Your task to perform on an android device: turn off location history Image 0: 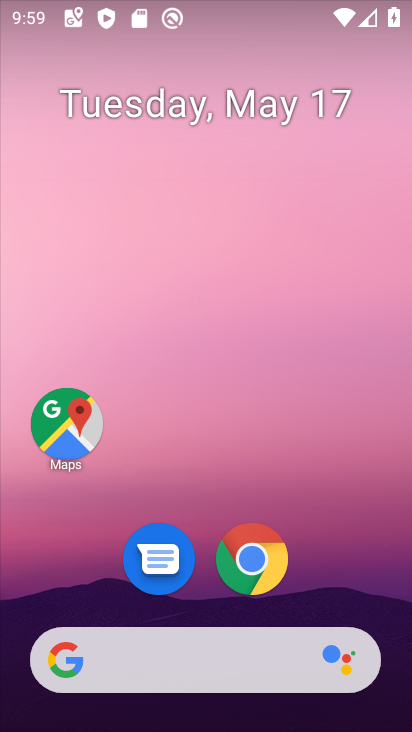
Step 0: drag from (237, 679) to (221, 0)
Your task to perform on an android device: turn off location history Image 1: 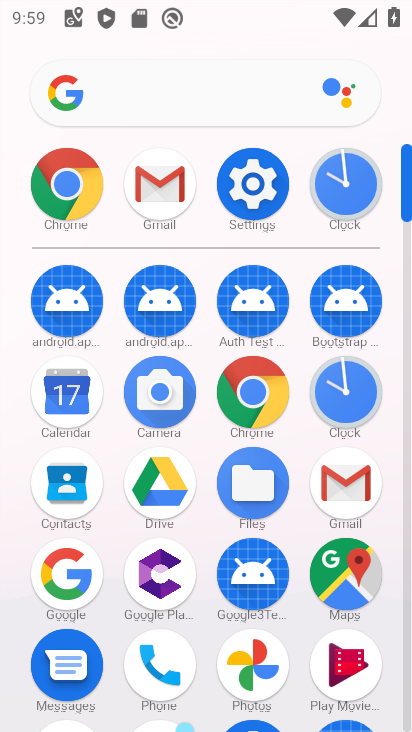
Step 1: click (264, 178)
Your task to perform on an android device: turn off location history Image 2: 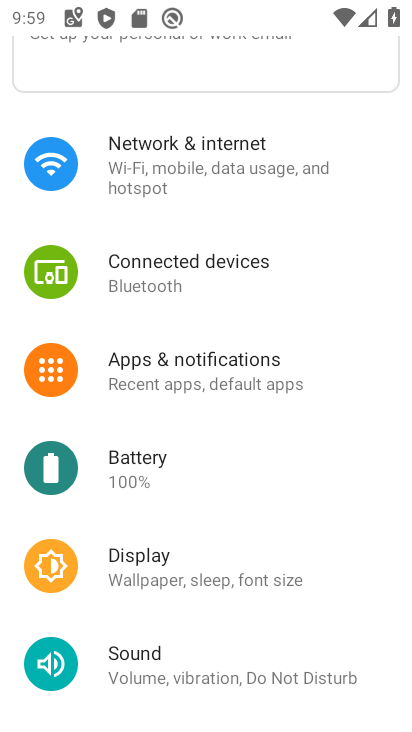
Step 2: drag from (232, 655) to (232, 62)
Your task to perform on an android device: turn off location history Image 3: 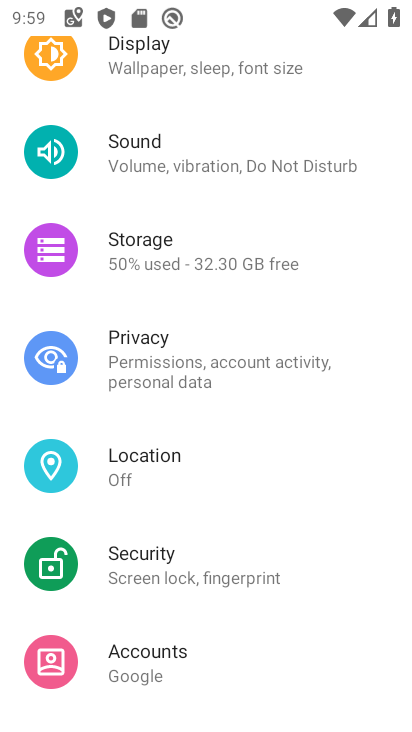
Step 3: click (185, 457)
Your task to perform on an android device: turn off location history Image 4: 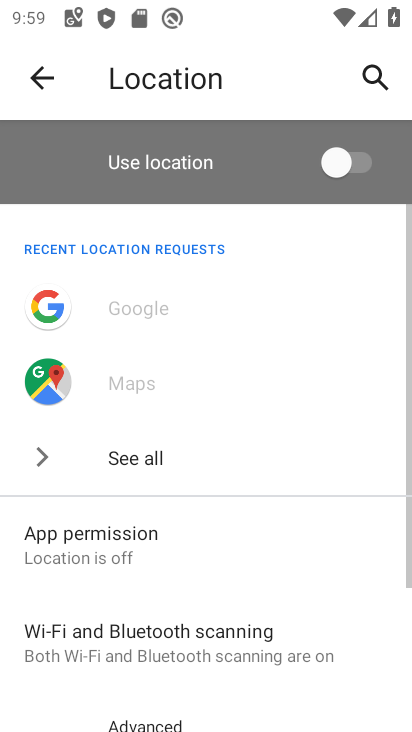
Step 4: drag from (184, 568) to (159, 118)
Your task to perform on an android device: turn off location history Image 5: 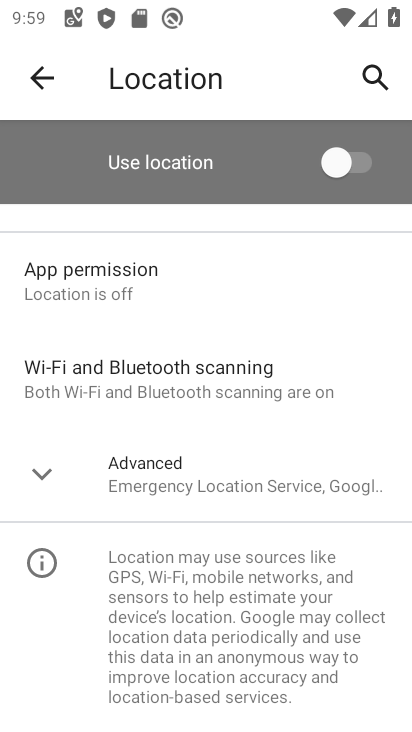
Step 5: click (250, 485)
Your task to perform on an android device: turn off location history Image 6: 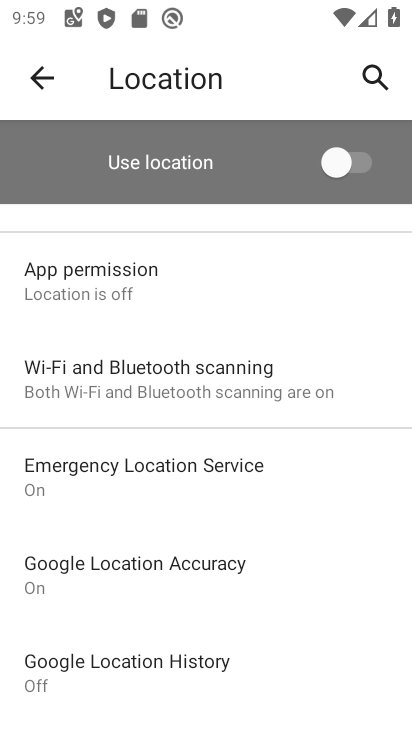
Step 6: drag from (283, 628) to (320, 266)
Your task to perform on an android device: turn off location history Image 7: 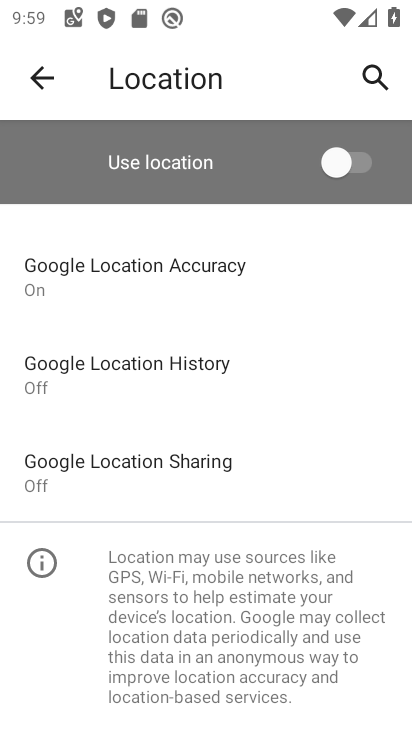
Step 7: click (141, 374)
Your task to perform on an android device: turn off location history Image 8: 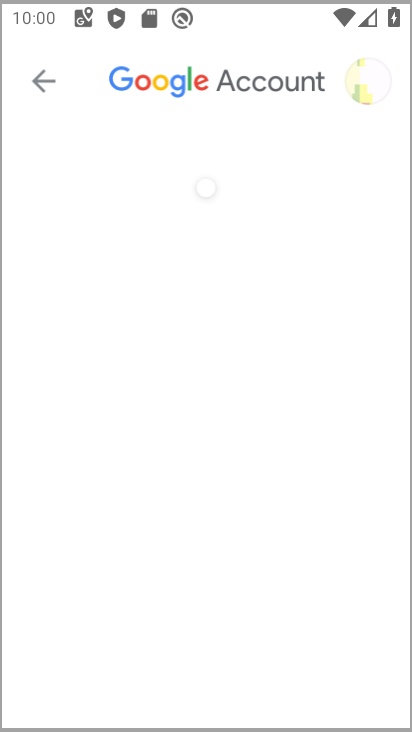
Step 8: task complete